Your task to perform on an android device: Search for pizza restaurants on Maps Image 0: 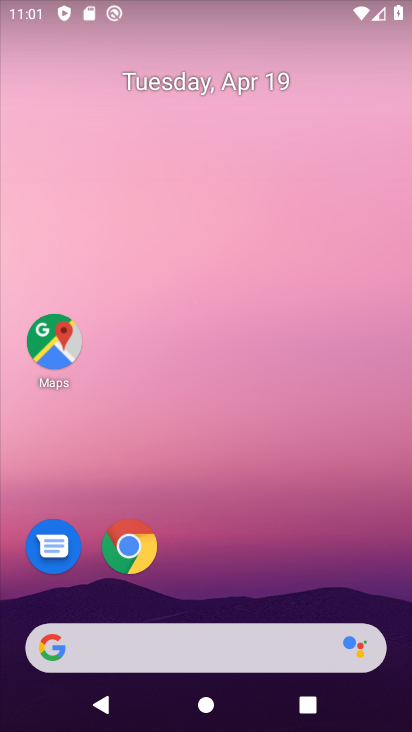
Step 0: drag from (285, 594) to (196, 134)
Your task to perform on an android device: Search for pizza restaurants on Maps Image 1: 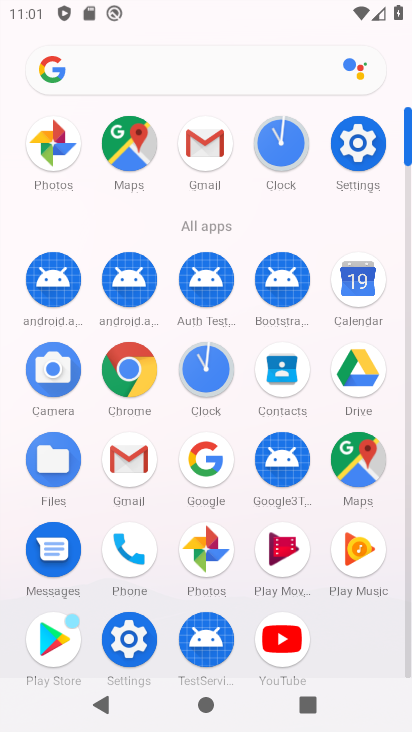
Step 1: click (364, 447)
Your task to perform on an android device: Search for pizza restaurants on Maps Image 2: 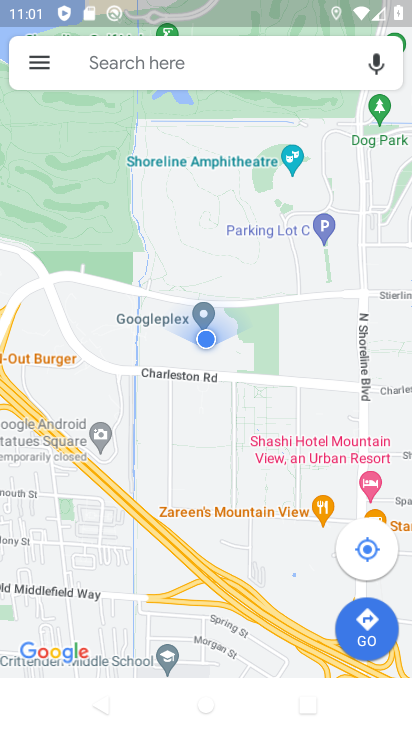
Step 2: click (223, 65)
Your task to perform on an android device: Search for pizza restaurants on Maps Image 3: 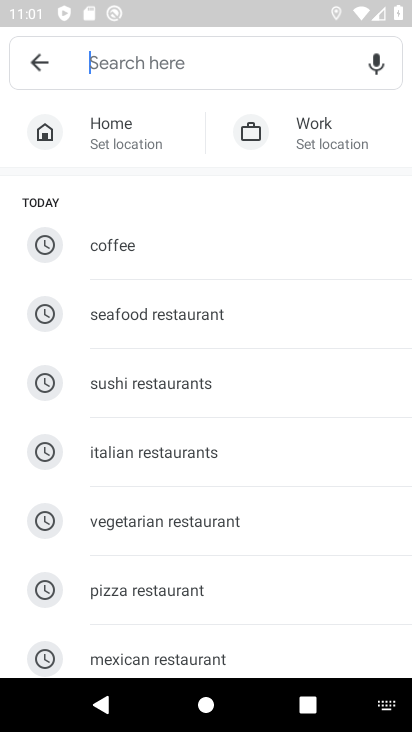
Step 3: type " pizza restaurants"
Your task to perform on an android device: Search for pizza restaurants on Maps Image 4: 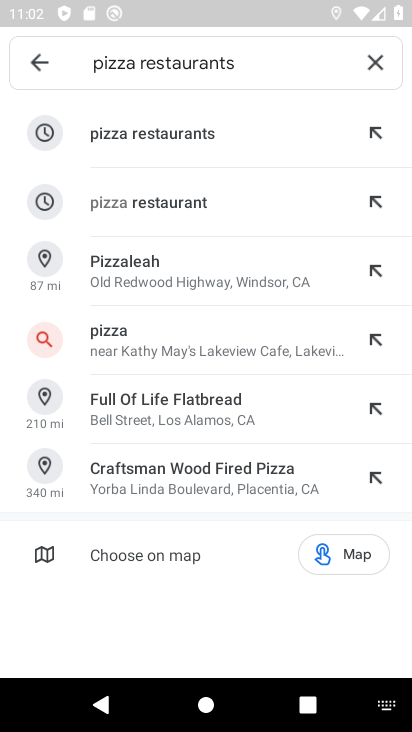
Step 4: click (141, 137)
Your task to perform on an android device: Search for pizza restaurants on Maps Image 5: 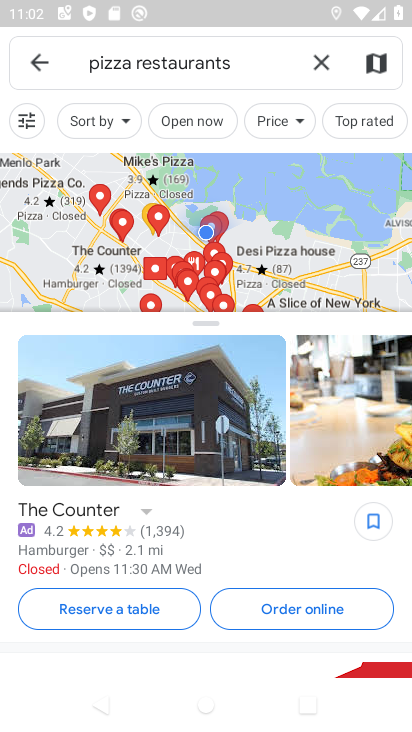
Step 5: task complete